Your task to perform on an android device: find which apps use the phone's location Image 0: 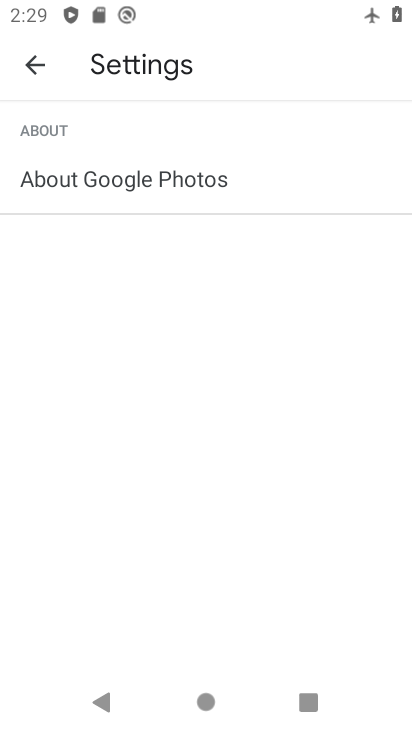
Step 0: press home button
Your task to perform on an android device: find which apps use the phone's location Image 1: 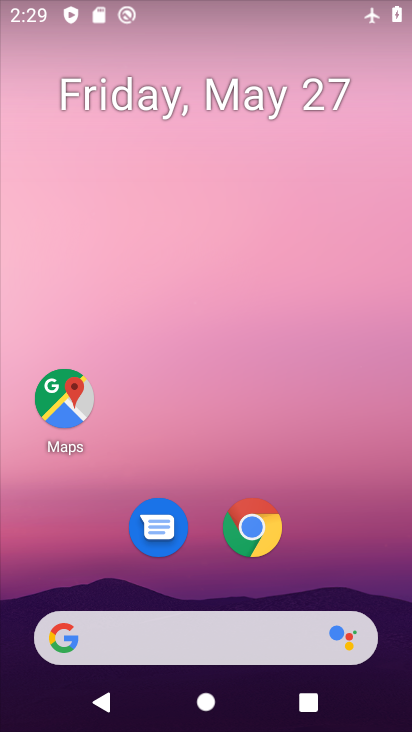
Step 1: drag from (238, 662) to (168, 1)
Your task to perform on an android device: find which apps use the phone's location Image 2: 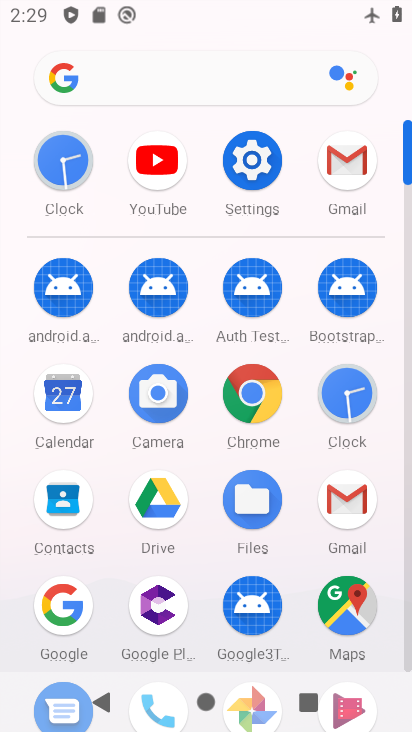
Step 2: click (275, 160)
Your task to perform on an android device: find which apps use the phone's location Image 3: 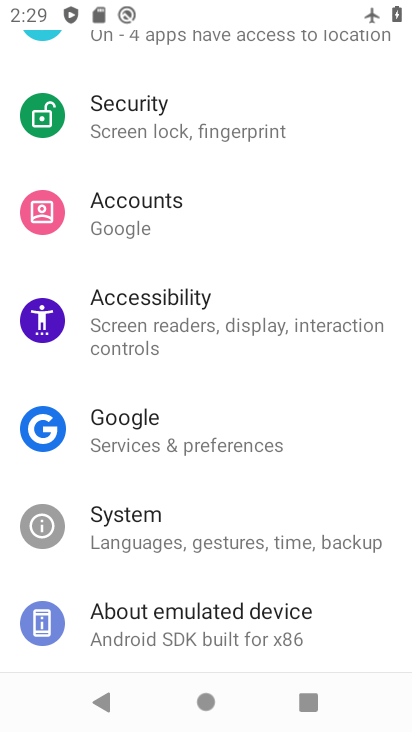
Step 3: drag from (283, 173) to (234, 536)
Your task to perform on an android device: find which apps use the phone's location Image 4: 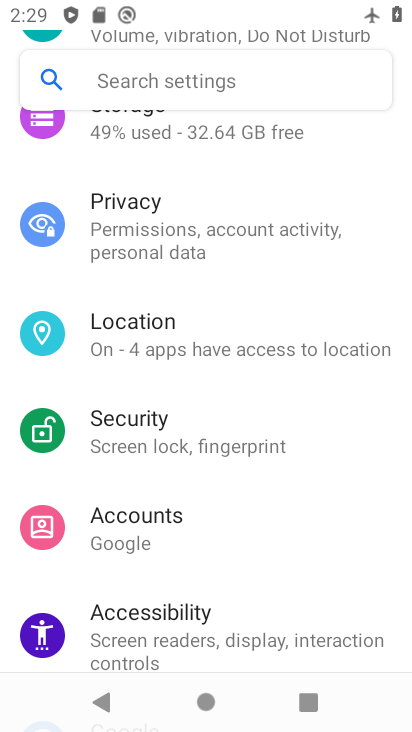
Step 4: click (241, 345)
Your task to perform on an android device: find which apps use the phone's location Image 5: 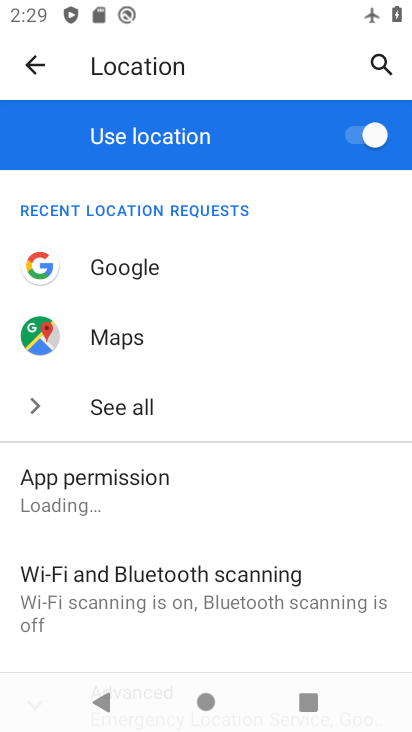
Step 5: click (137, 408)
Your task to perform on an android device: find which apps use the phone's location Image 6: 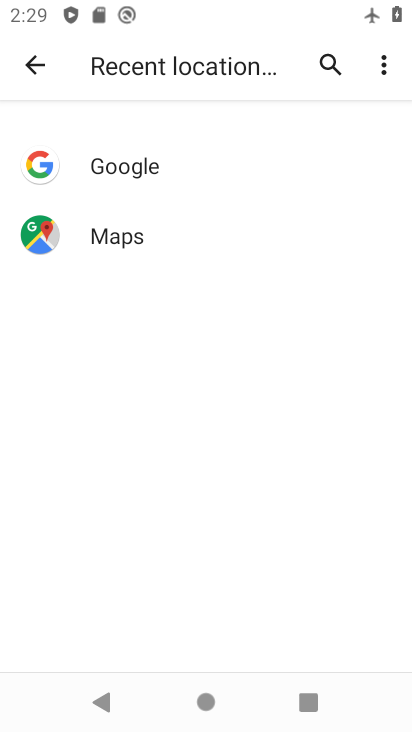
Step 6: task complete